Your task to perform on an android device: Open Android settings Image 0: 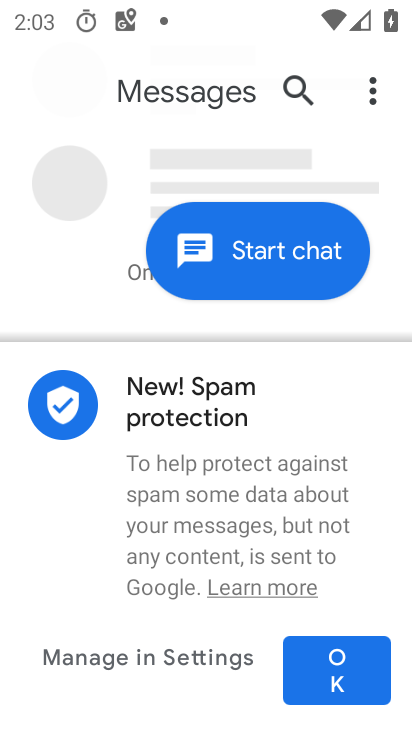
Step 0: press home button
Your task to perform on an android device: Open Android settings Image 1: 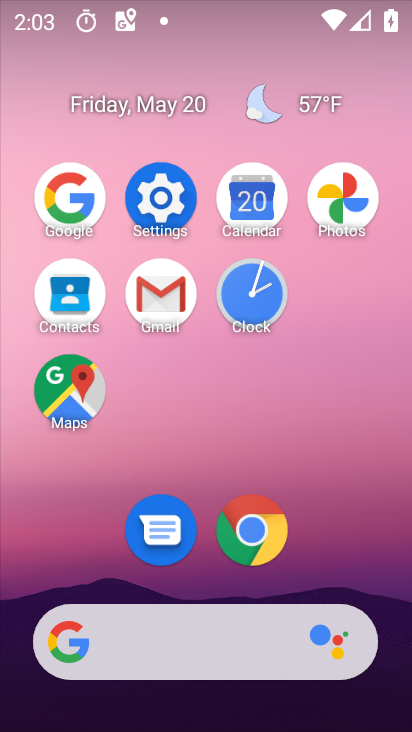
Step 1: click (169, 189)
Your task to perform on an android device: Open Android settings Image 2: 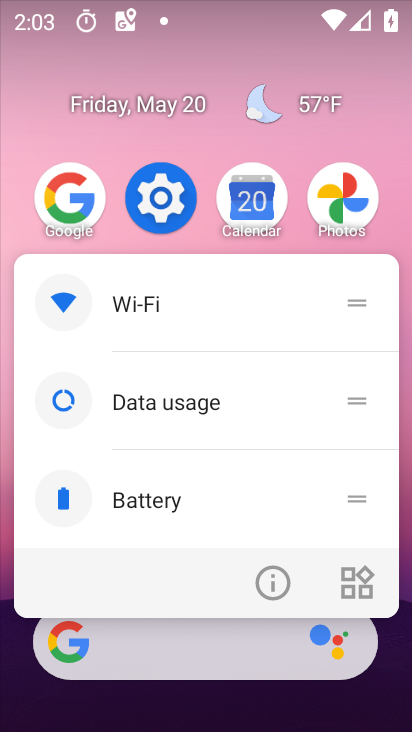
Step 2: click (164, 195)
Your task to perform on an android device: Open Android settings Image 3: 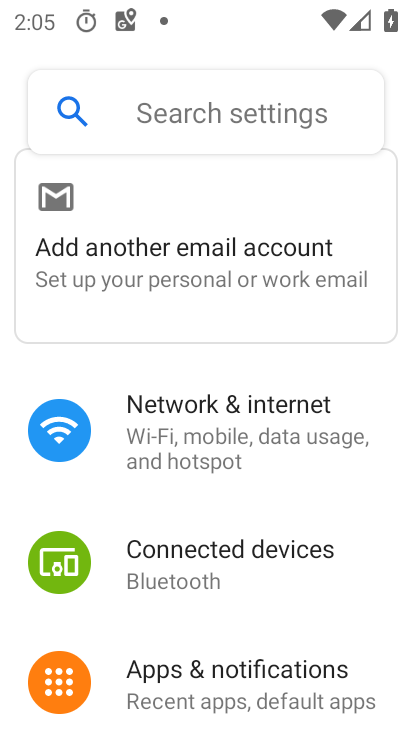
Step 3: task complete